Your task to perform on an android device: delete the emails in spam in the gmail app Image 0: 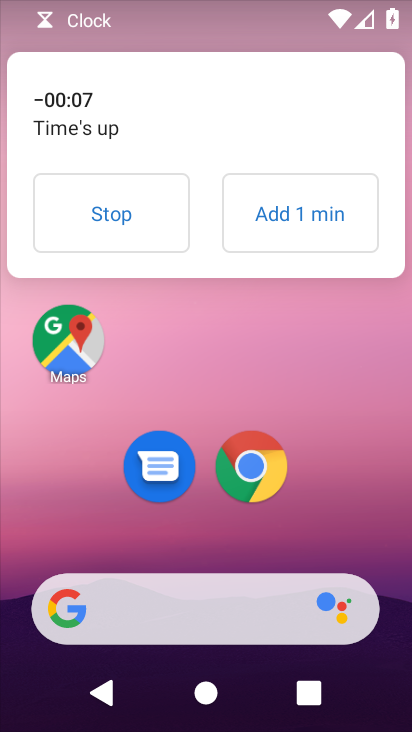
Step 0: click (73, 232)
Your task to perform on an android device: delete the emails in spam in the gmail app Image 1: 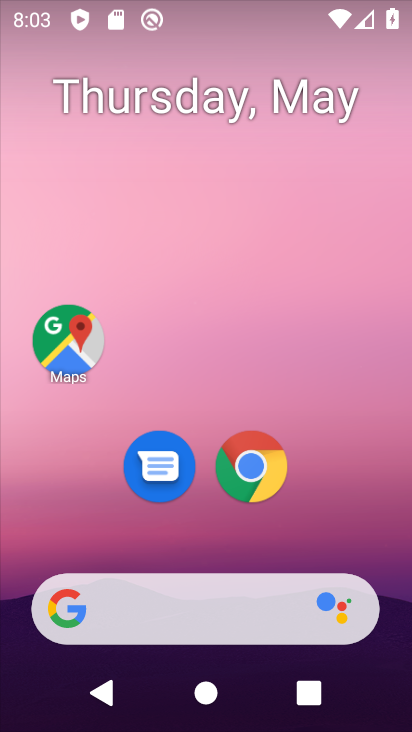
Step 1: drag from (243, 559) to (206, 60)
Your task to perform on an android device: delete the emails in spam in the gmail app Image 2: 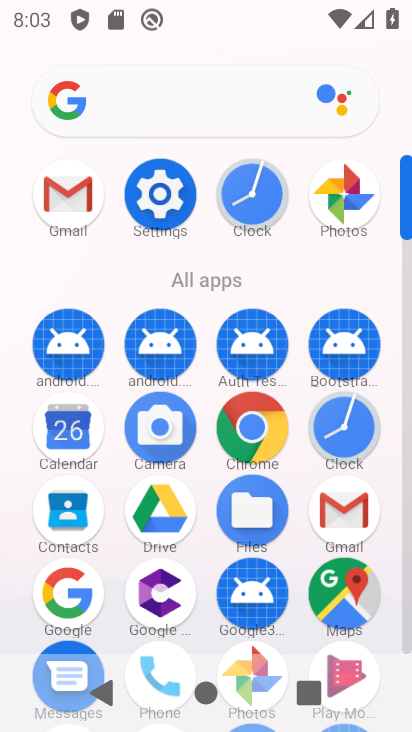
Step 2: click (340, 520)
Your task to perform on an android device: delete the emails in spam in the gmail app Image 3: 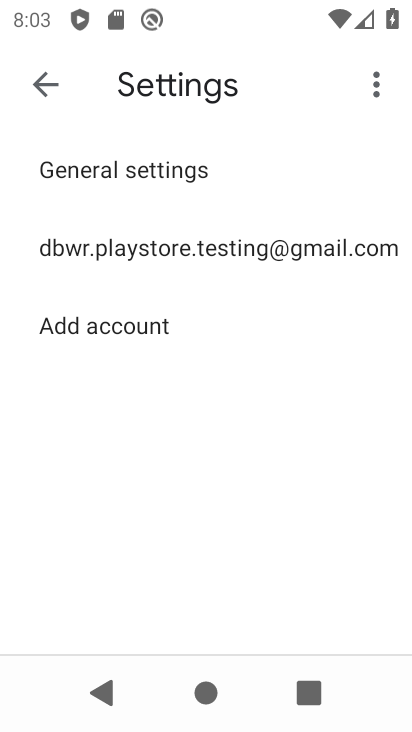
Step 3: click (54, 81)
Your task to perform on an android device: delete the emails in spam in the gmail app Image 4: 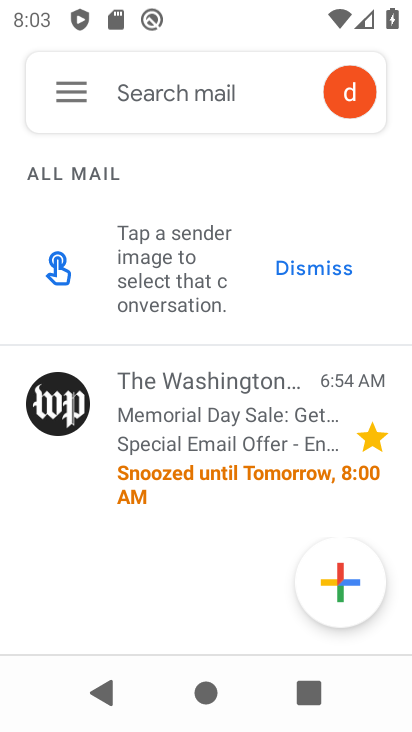
Step 4: click (54, 81)
Your task to perform on an android device: delete the emails in spam in the gmail app Image 5: 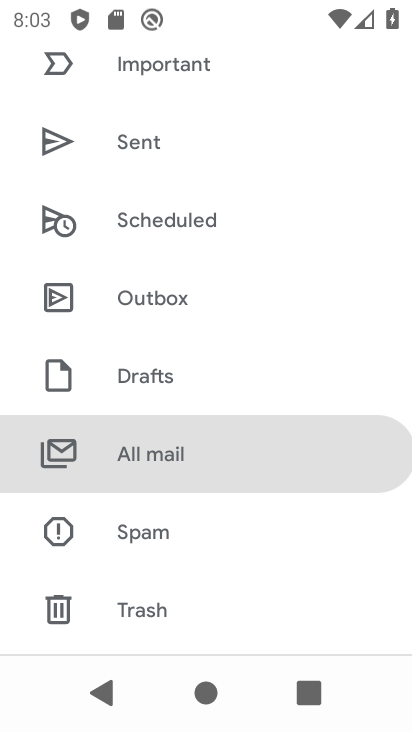
Step 5: click (164, 453)
Your task to perform on an android device: delete the emails in spam in the gmail app Image 6: 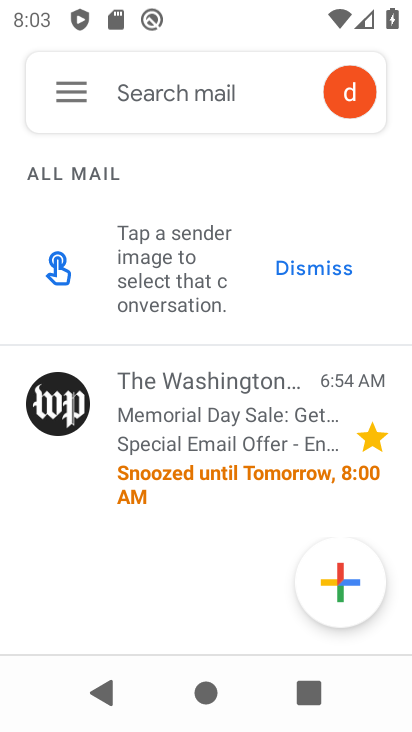
Step 6: click (168, 440)
Your task to perform on an android device: delete the emails in spam in the gmail app Image 7: 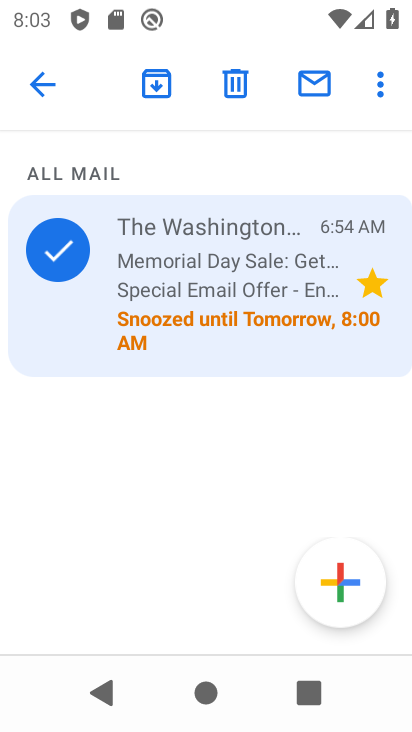
Step 7: click (245, 84)
Your task to perform on an android device: delete the emails in spam in the gmail app Image 8: 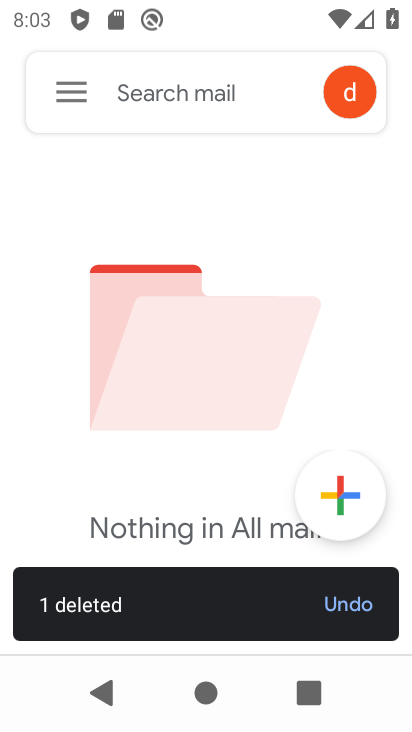
Step 8: task complete